Your task to perform on an android device: make emails show in primary in the gmail app Image 0: 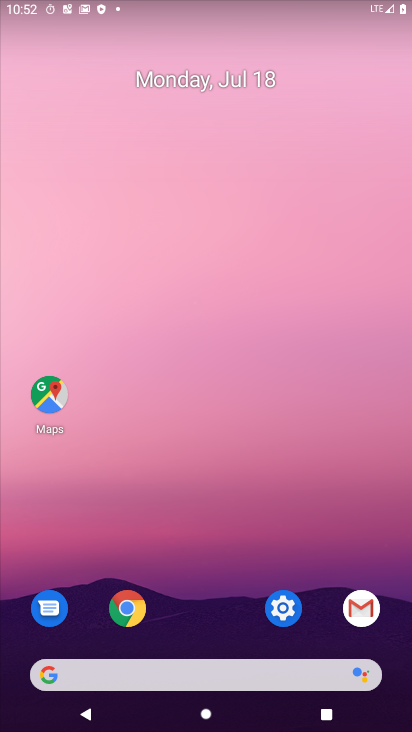
Step 0: press home button
Your task to perform on an android device: make emails show in primary in the gmail app Image 1: 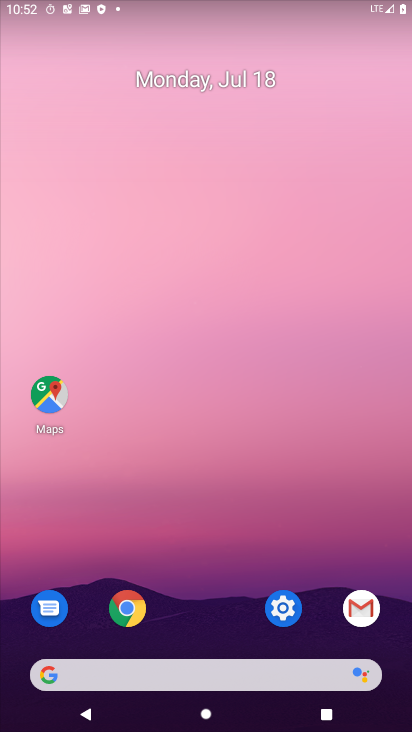
Step 1: click (359, 620)
Your task to perform on an android device: make emails show in primary in the gmail app Image 2: 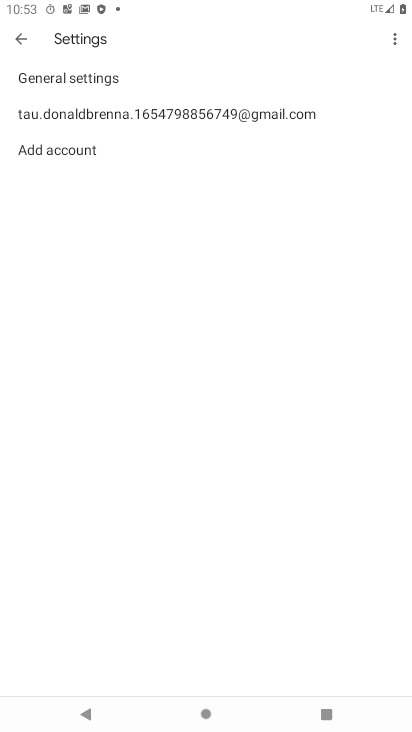
Step 2: click (23, 45)
Your task to perform on an android device: make emails show in primary in the gmail app Image 3: 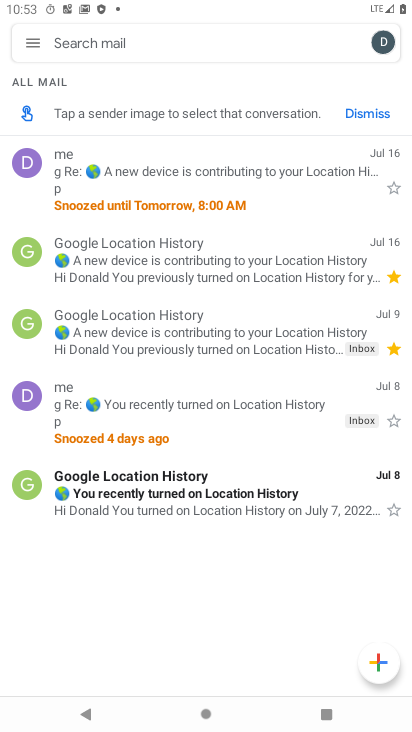
Step 3: click (24, 44)
Your task to perform on an android device: make emails show in primary in the gmail app Image 4: 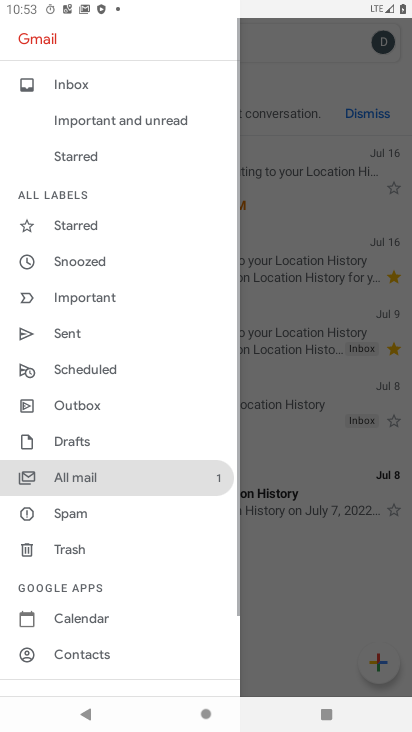
Step 4: drag from (92, 138) to (119, 97)
Your task to perform on an android device: make emails show in primary in the gmail app Image 5: 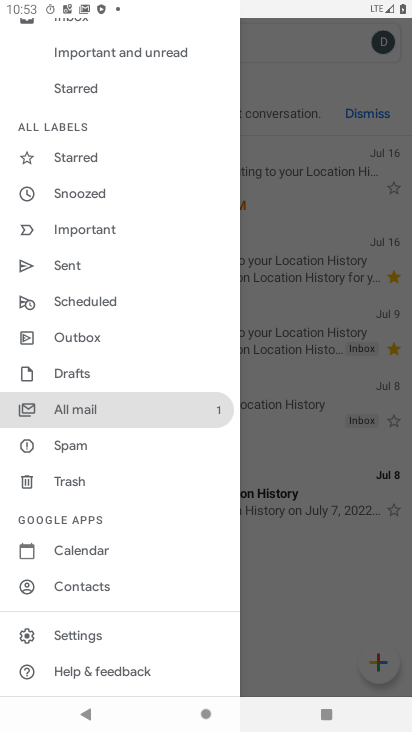
Step 5: click (98, 640)
Your task to perform on an android device: make emails show in primary in the gmail app Image 6: 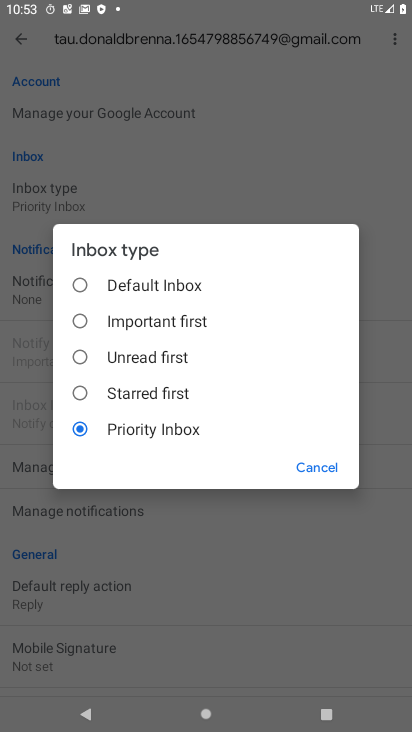
Step 6: click (300, 465)
Your task to perform on an android device: make emails show in primary in the gmail app Image 7: 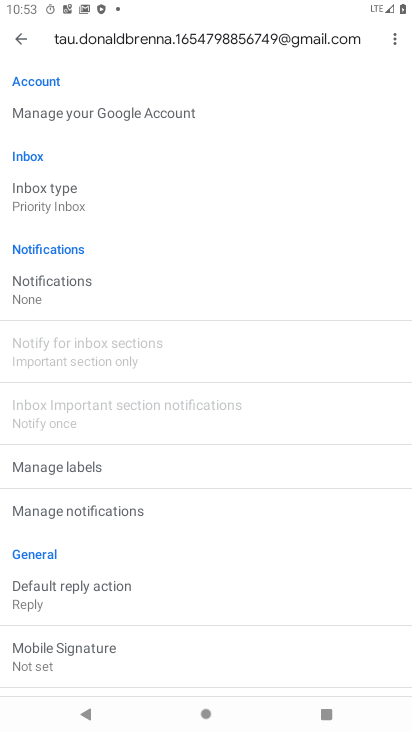
Step 7: click (92, 203)
Your task to perform on an android device: make emails show in primary in the gmail app Image 8: 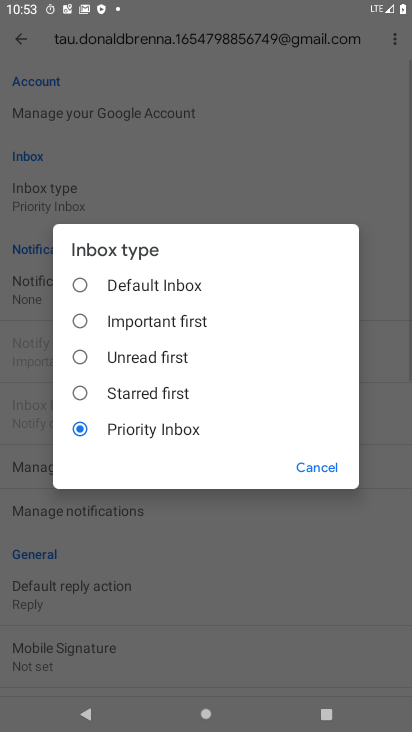
Step 8: click (123, 285)
Your task to perform on an android device: make emails show in primary in the gmail app Image 9: 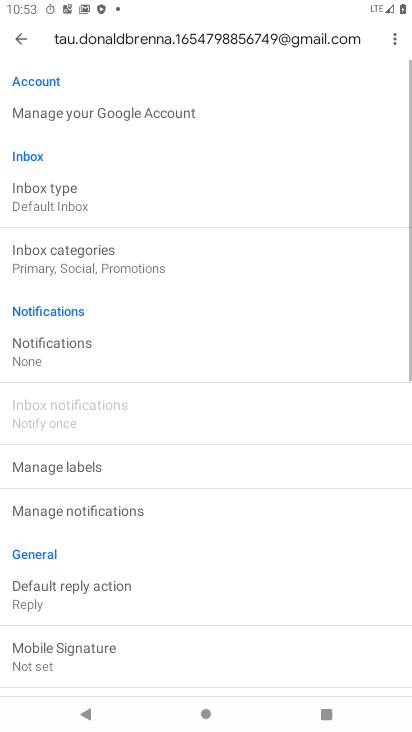
Step 9: click (74, 274)
Your task to perform on an android device: make emails show in primary in the gmail app Image 10: 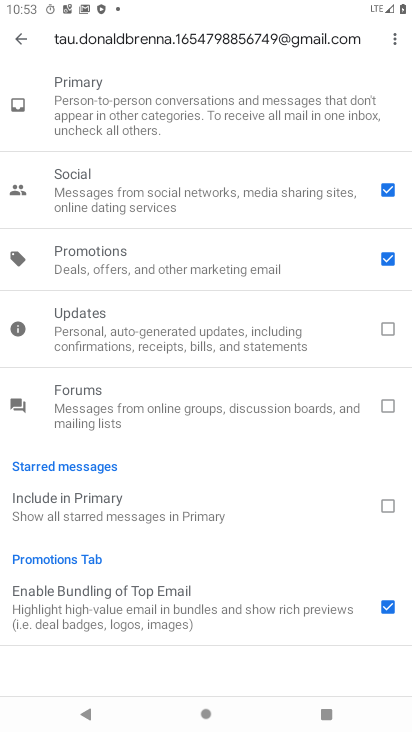
Step 10: click (187, 111)
Your task to perform on an android device: make emails show in primary in the gmail app Image 11: 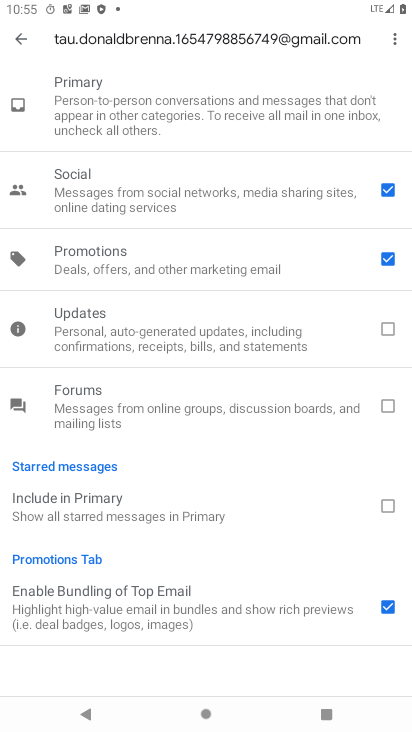
Step 11: task complete